Your task to perform on an android device: Open my contact list Image 0: 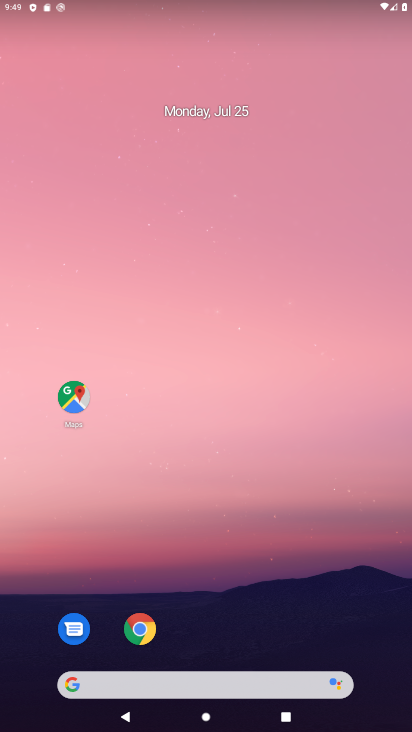
Step 0: drag from (251, 579) to (58, 56)
Your task to perform on an android device: Open my contact list Image 1: 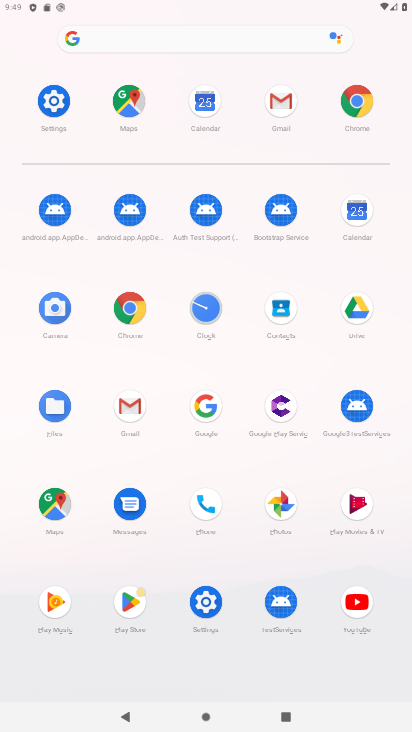
Step 1: click (281, 307)
Your task to perform on an android device: Open my contact list Image 2: 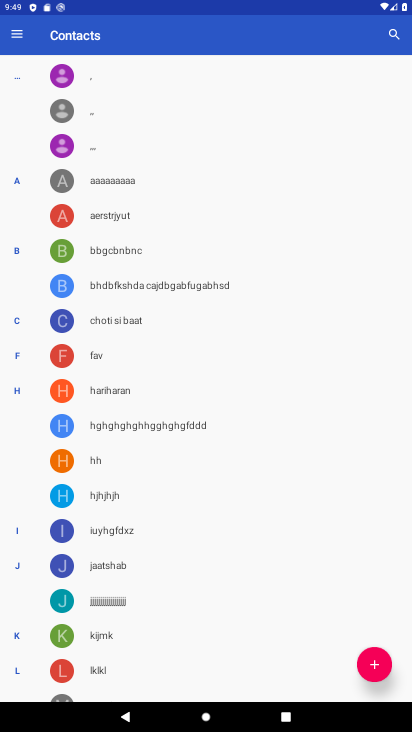
Step 2: task complete